Your task to perform on an android device: Do I have any events tomorrow? Image 0: 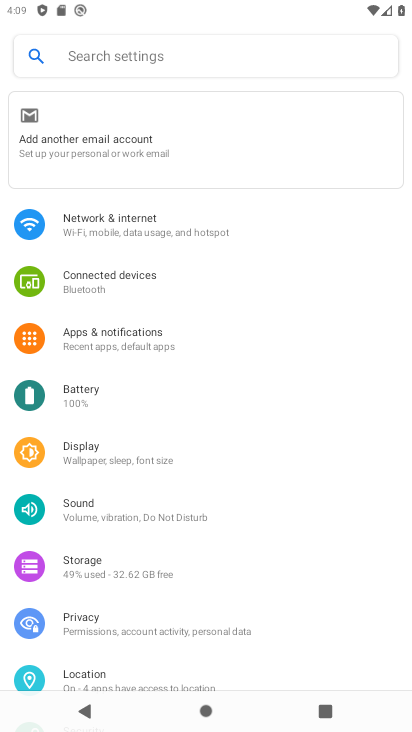
Step 0: press home button
Your task to perform on an android device: Do I have any events tomorrow? Image 1: 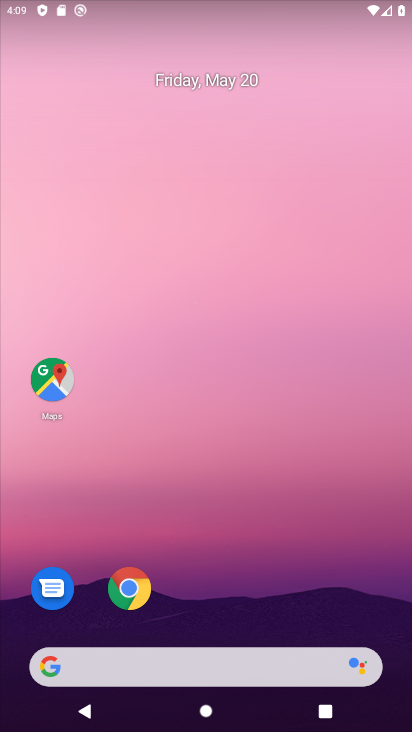
Step 1: drag from (167, 592) to (233, 67)
Your task to perform on an android device: Do I have any events tomorrow? Image 2: 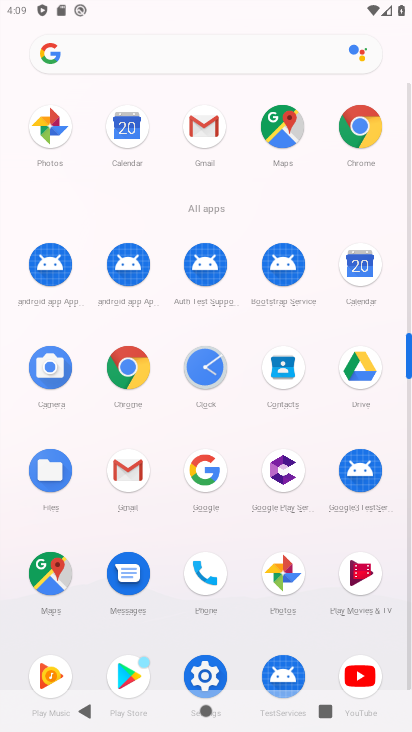
Step 2: click (127, 125)
Your task to perform on an android device: Do I have any events tomorrow? Image 3: 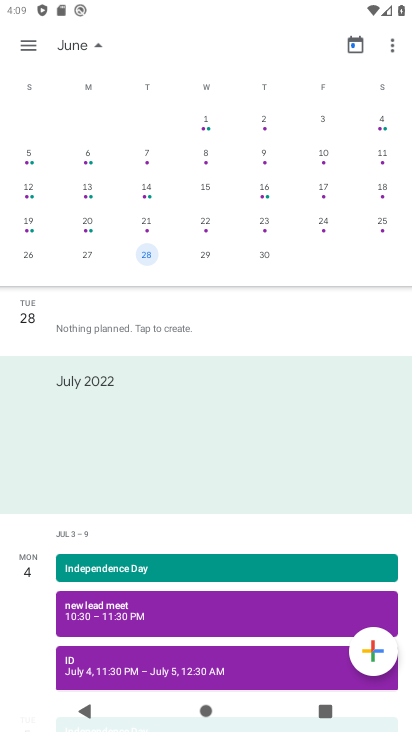
Step 3: drag from (40, 133) to (398, 149)
Your task to perform on an android device: Do I have any events tomorrow? Image 4: 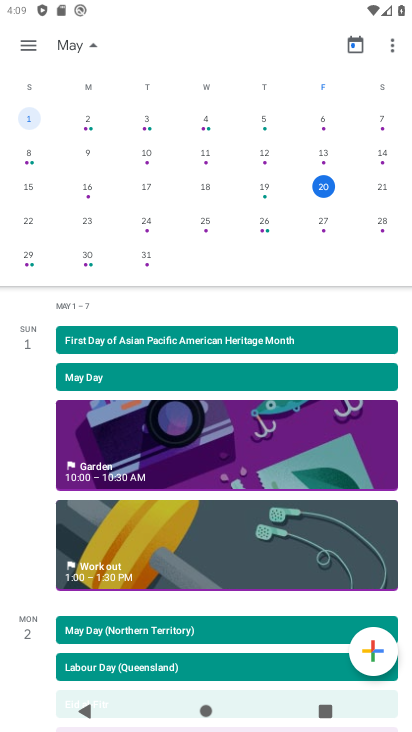
Step 4: click (376, 184)
Your task to perform on an android device: Do I have any events tomorrow? Image 5: 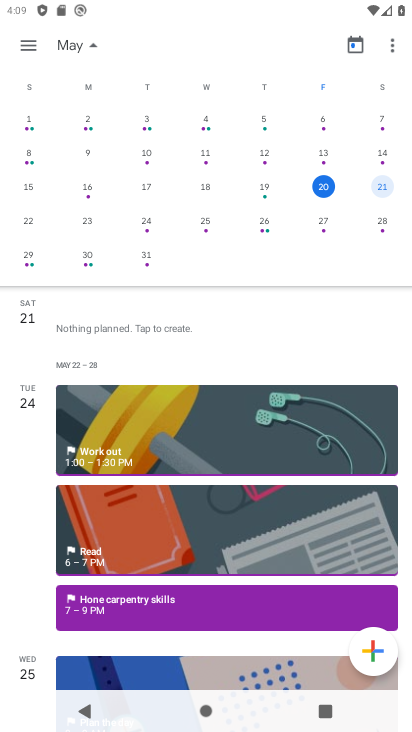
Step 5: task complete